Your task to perform on an android device: Open sound settings Image 0: 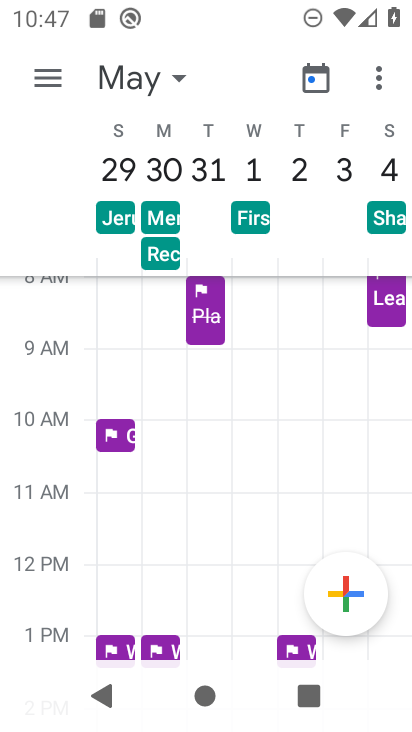
Step 0: press home button
Your task to perform on an android device: Open sound settings Image 1: 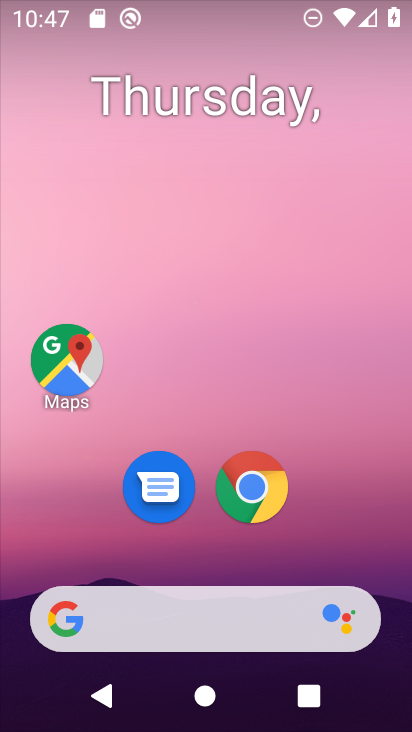
Step 1: drag from (326, 520) to (137, 73)
Your task to perform on an android device: Open sound settings Image 2: 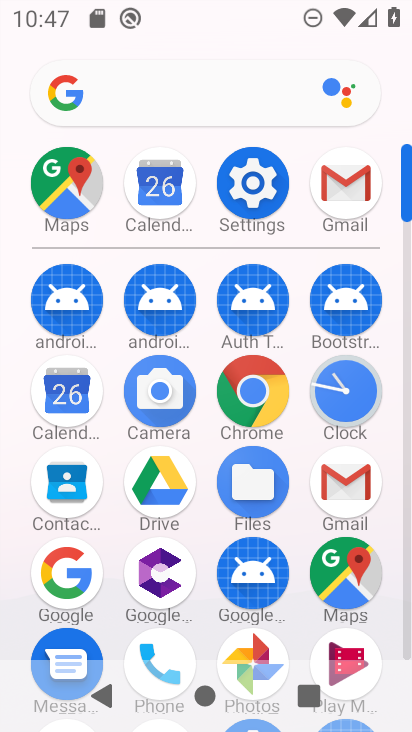
Step 2: click (275, 181)
Your task to perform on an android device: Open sound settings Image 3: 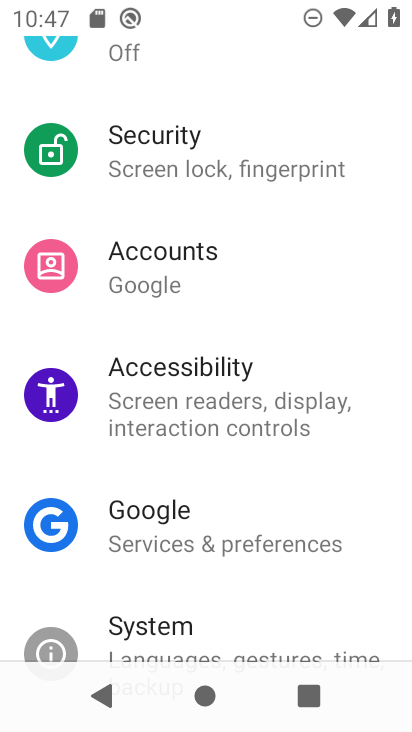
Step 3: drag from (275, 181) to (305, 593)
Your task to perform on an android device: Open sound settings Image 4: 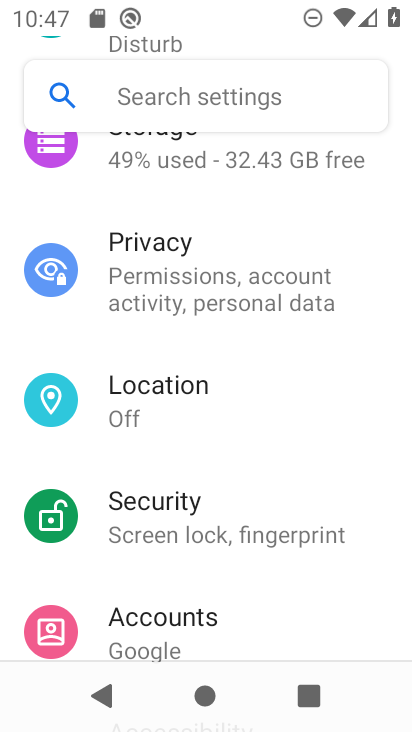
Step 4: drag from (253, 249) to (270, 570)
Your task to perform on an android device: Open sound settings Image 5: 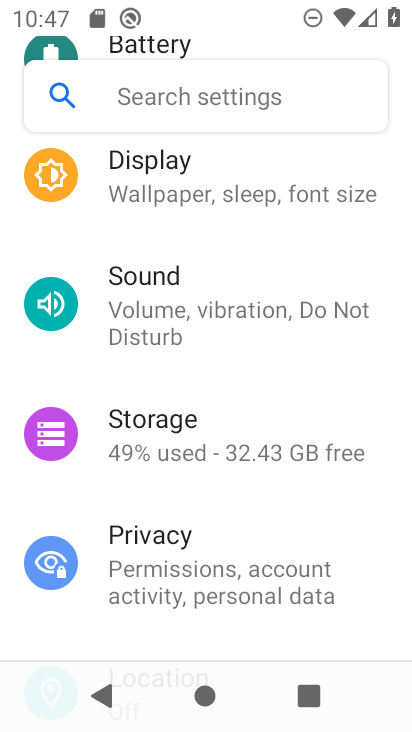
Step 5: click (153, 309)
Your task to perform on an android device: Open sound settings Image 6: 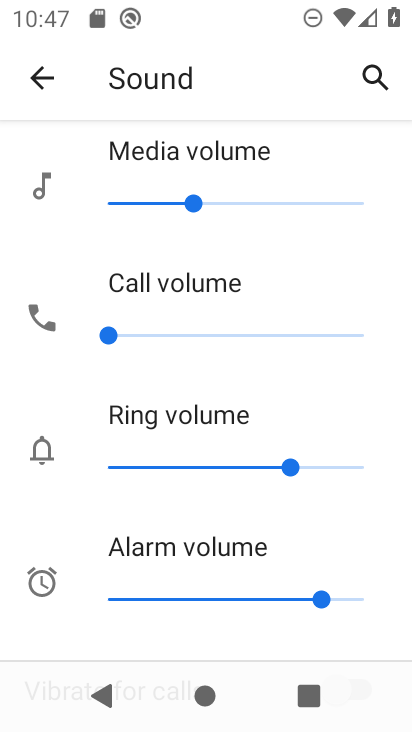
Step 6: task complete